Your task to perform on an android device: turn off smart reply in the gmail app Image 0: 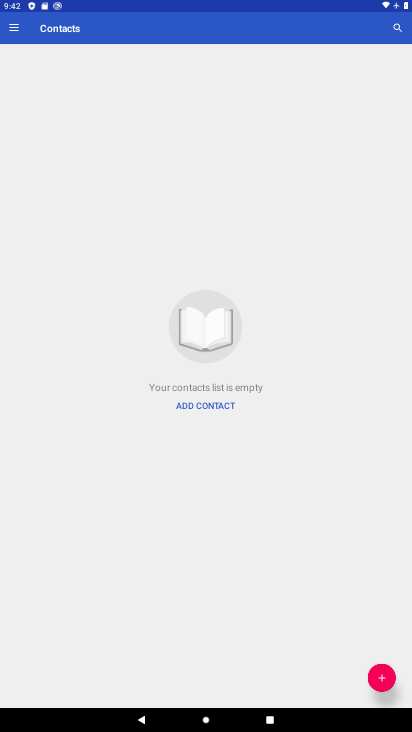
Step 0: press home button
Your task to perform on an android device: turn off smart reply in the gmail app Image 1: 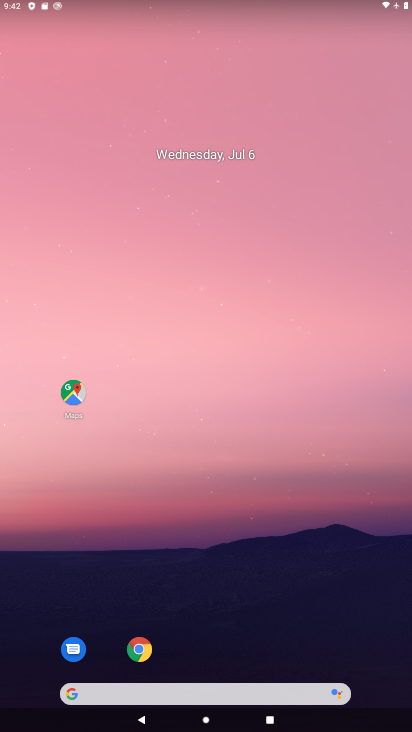
Step 1: drag from (369, 658) to (299, 78)
Your task to perform on an android device: turn off smart reply in the gmail app Image 2: 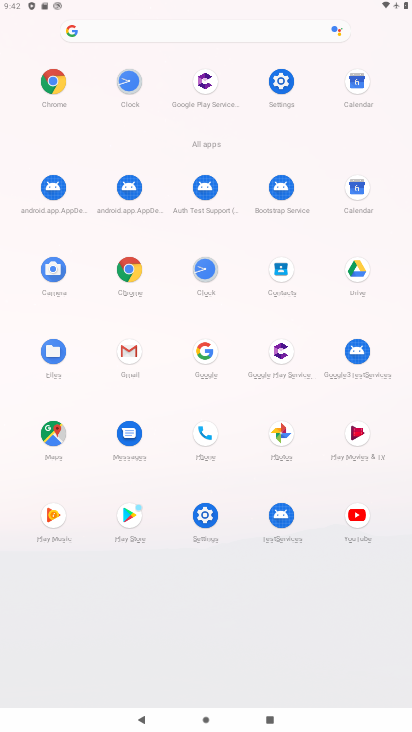
Step 2: click (129, 352)
Your task to perform on an android device: turn off smart reply in the gmail app Image 3: 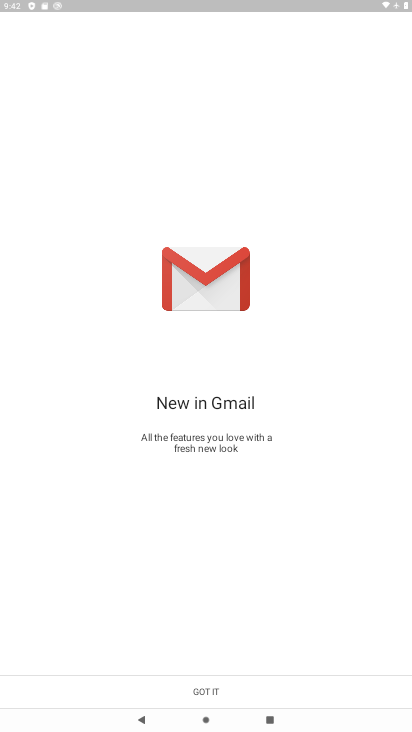
Step 3: click (214, 693)
Your task to perform on an android device: turn off smart reply in the gmail app Image 4: 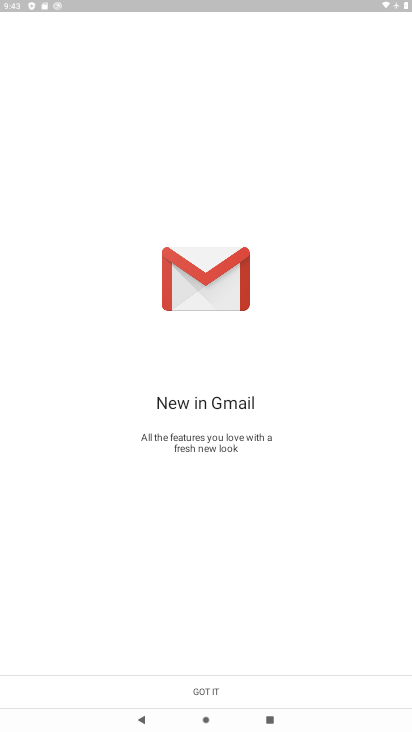
Step 4: click (214, 693)
Your task to perform on an android device: turn off smart reply in the gmail app Image 5: 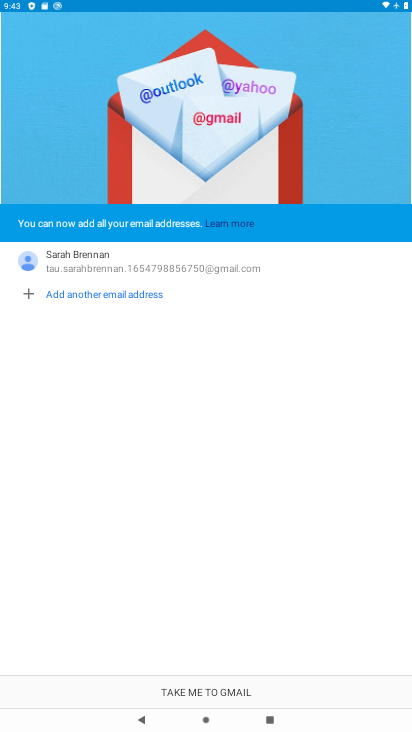
Step 5: click (214, 689)
Your task to perform on an android device: turn off smart reply in the gmail app Image 6: 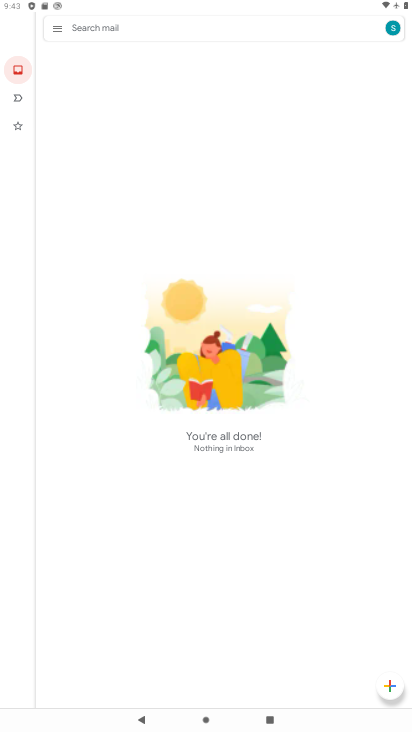
Step 6: click (57, 28)
Your task to perform on an android device: turn off smart reply in the gmail app Image 7: 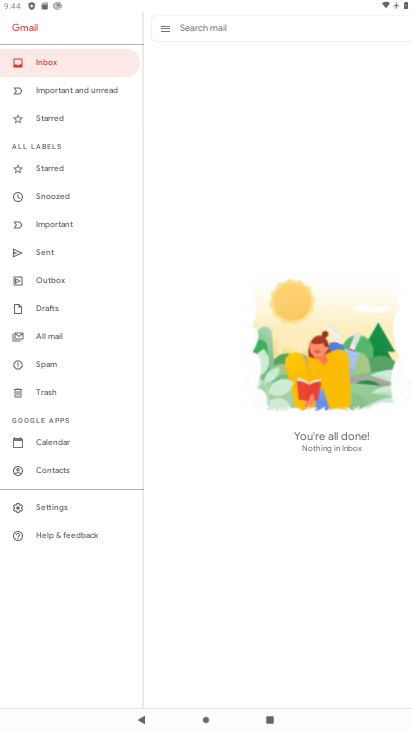
Step 7: click (46, 502)
Your task to perform on an android device: turn off smart reply in the gmail app Image 8: 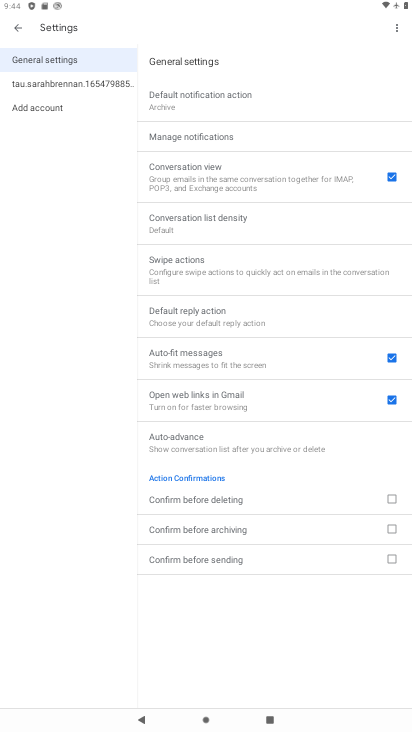
Step 8: click (23, 31)
Your task to perform on an android device: turn off smart reply in the gmail app Image 9: 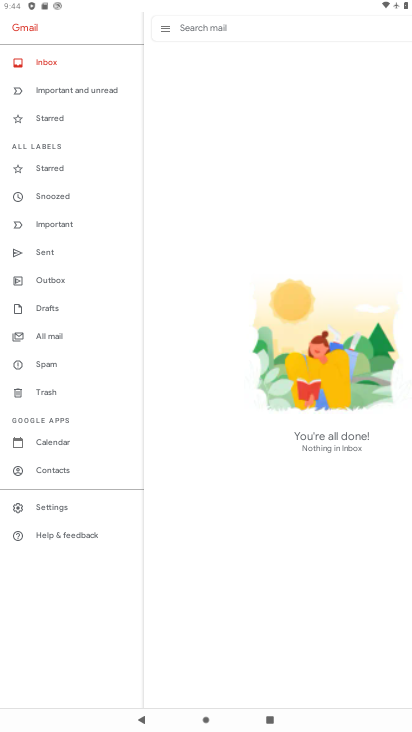
Step 9: click (41, 509)
Your task to perform on an android device: turn off smart reply in the gmail app Image 10: 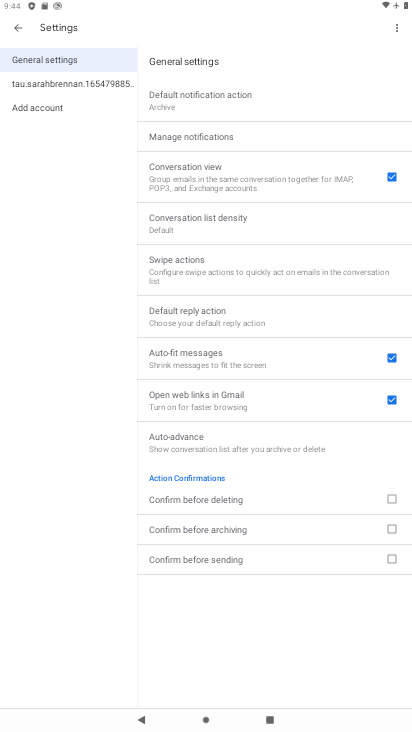
Step 10: click (53, 85)
Your task to perform on an android device: turn off smart reply in the gmail app Image 11: 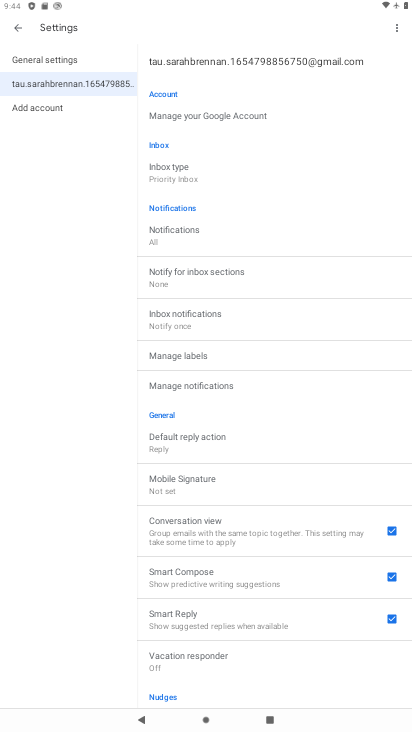
Step 11: click (188, 616)
Your task to perform on an android device: turn off smart reply in the gmail app Image 12: 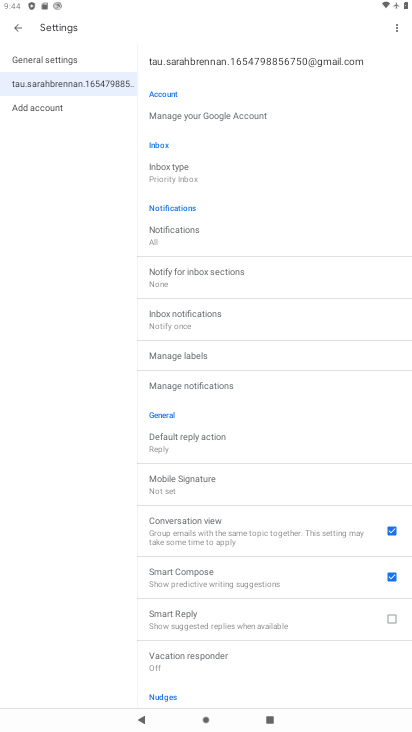
Step 12: task complete